Your task to perform on an android device: Open the stopwatch Image 0: 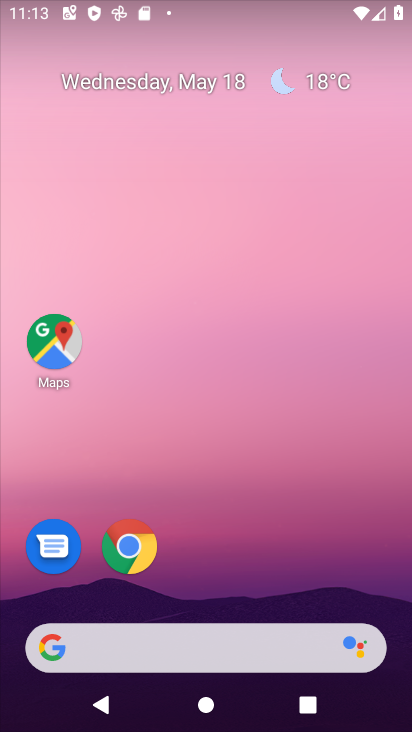
Step 0: drag from (217, 722) to (216, 191)
Your task to perform on an android device: Open the stopwatch Image 1: 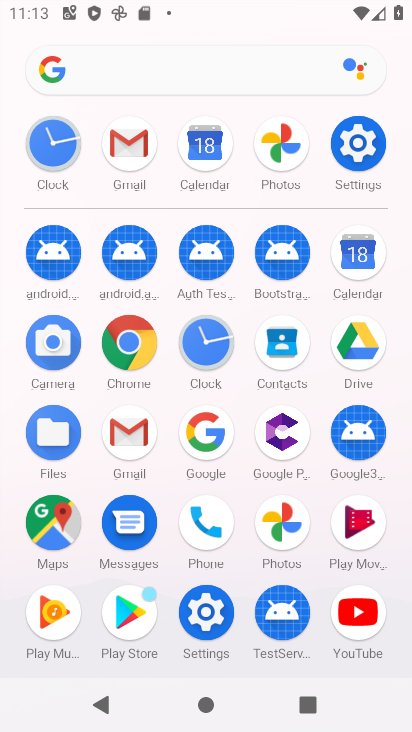
Step 1: click (217, 349)
Your task to perform on an android device: Open the stopwatch Image 2: 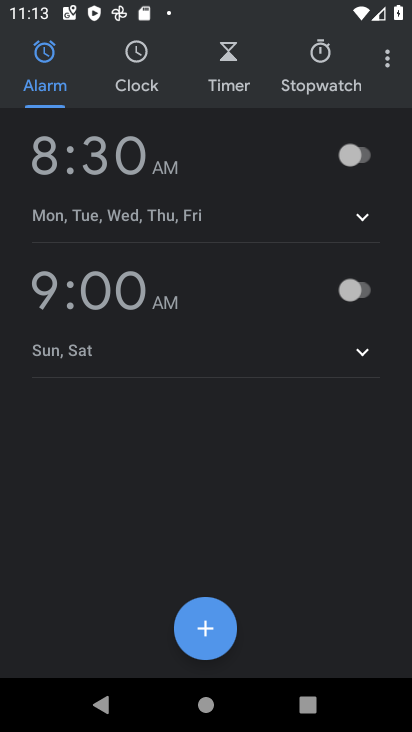
Step 2: click (317, 58)
Your task to perform on an android device: Open the stopwatch Image 3: 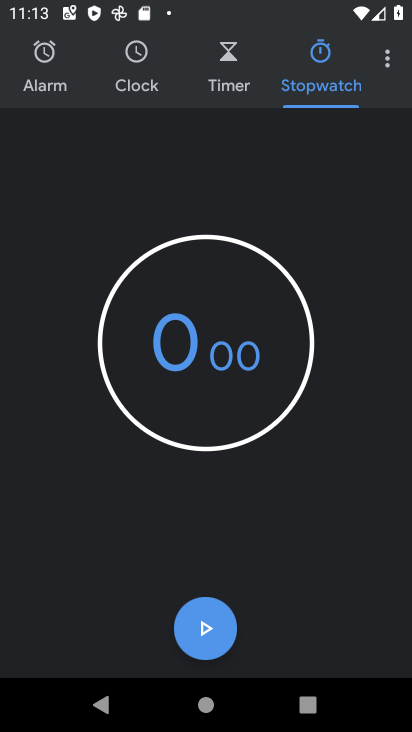
Step 3: task complete